Your task to perform on an android device: Go to Yahoo.com Image 0: 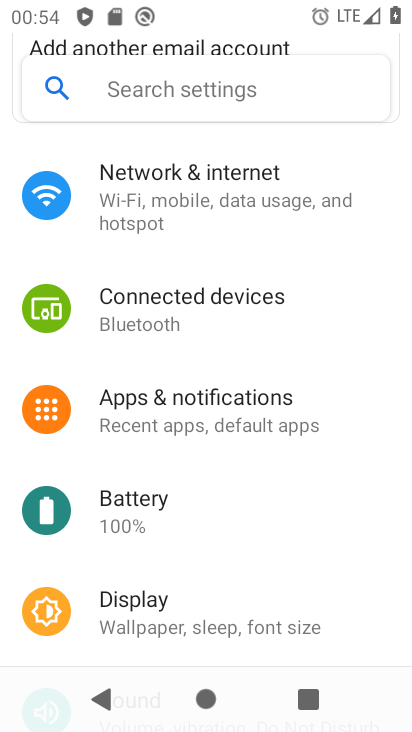
Step 0: press home button
Your task to perform on an android device: Go to Yahoo.com Image 1: 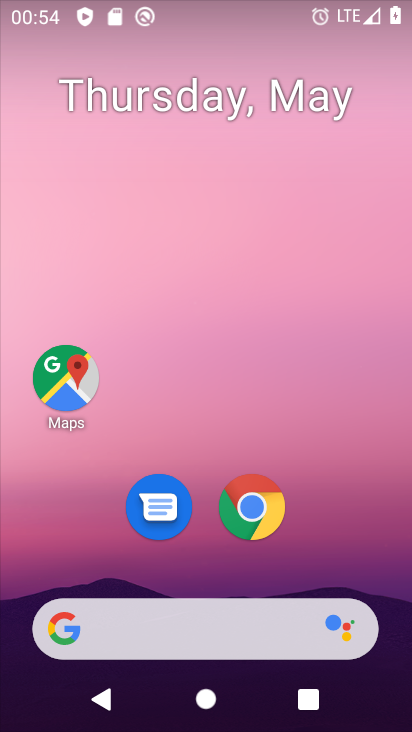
Step 1: click (249, 526)
Your task to perform on an android device: Go to Yahoo.com Image 2: 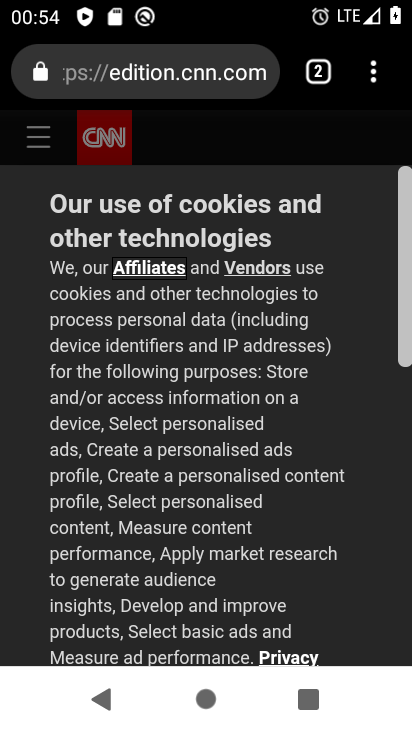
Step 2: click (329, 66)
Your task to perform on an android device: Go to Yahoo.com Image 3: 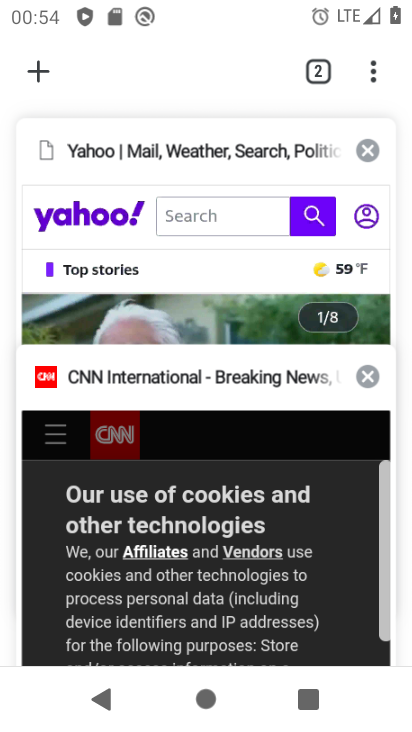
Step 3: click (160, 201)
Your task to perform on an android device: Go to Yahoo.com Image 4: 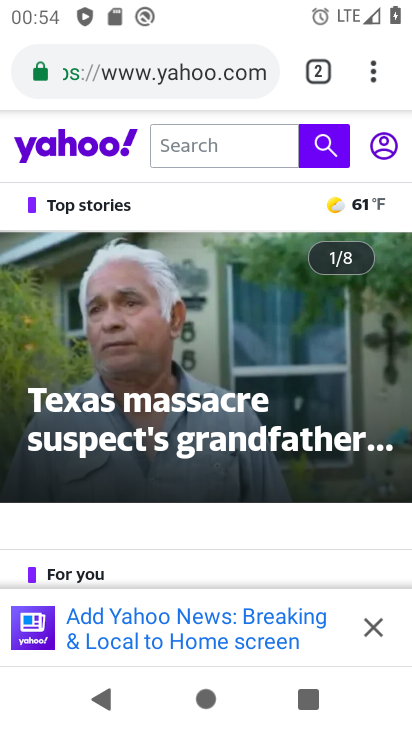
Step 4: task complete